Your task to perform on an android device: Open privacy settings Image 0: 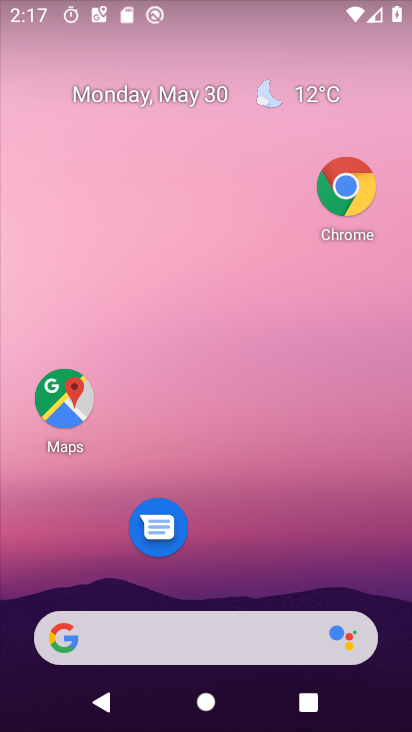
Step 0: drag from (226, 585) to (226, 190)
Your task to perform on an android device: Open privacy settings Image 1: 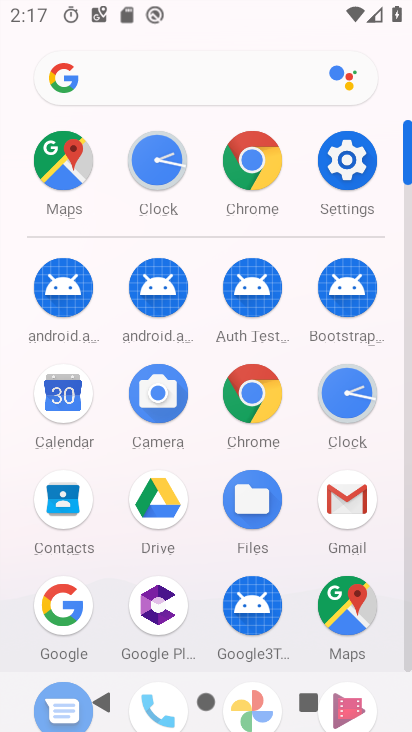
Step 1: click (353, 148)
Your task to perform on an android device: Open privacy settings Image 2: 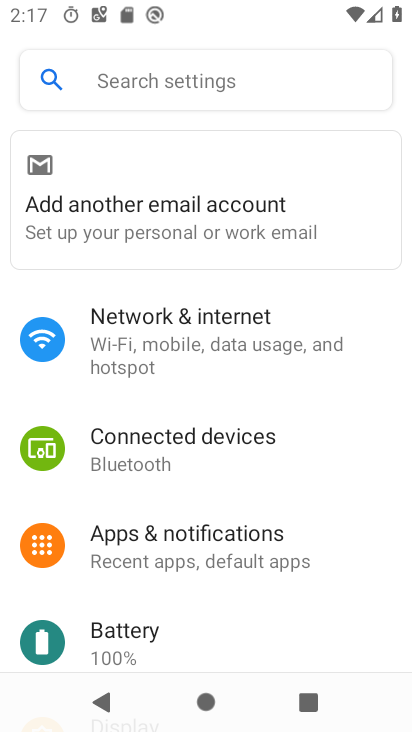
Step 2: drag from (223, 561) to (277, 174)
Your task to perform on an android device: Open privacy settings Image 3: 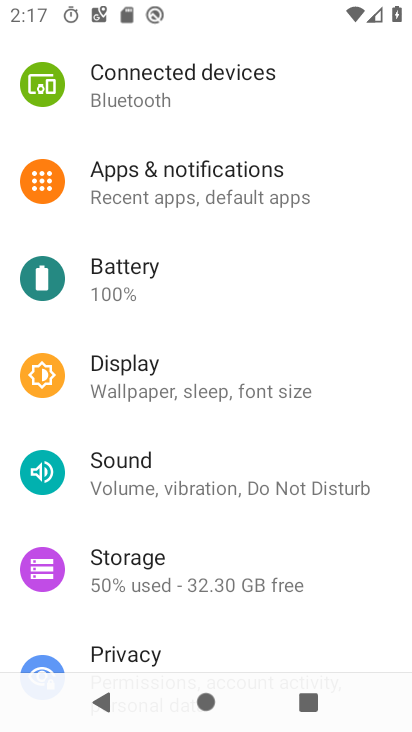
Step 3: drag from (174, 498) to (228, 167)
Your task to perform on an android device: Open privacy settings Image 4: 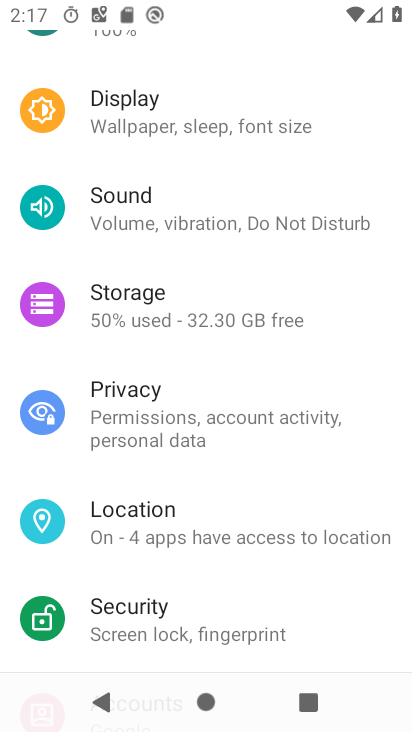
Step 4: click (141, 378)
Your task to perform on an android device: Open privacy settings Image 5: 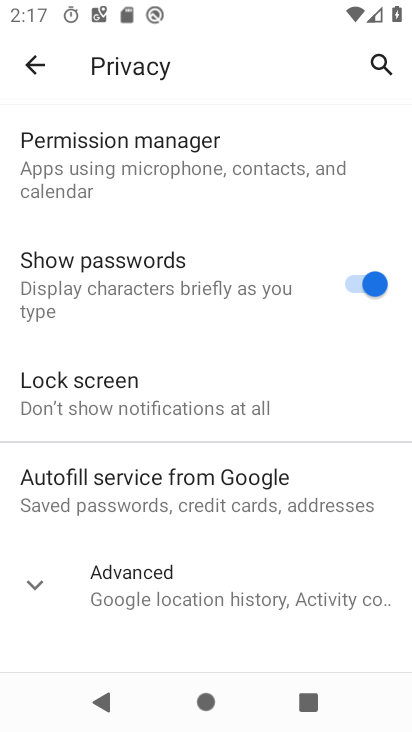
Step 5: task complete